Your task to perform on an android device: open app "LinkedIn" (install if not already installed), go to login, and select forgot password Image 0: 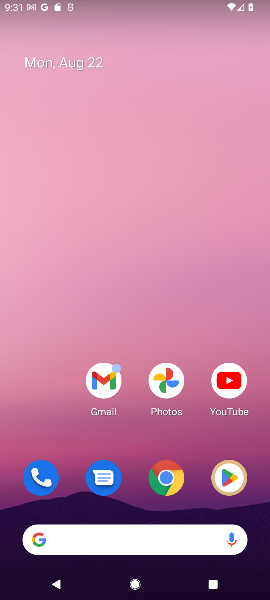
Step 0: click (237, 476)
Your task to perform on an android device: open app "LinkedIn" (install if not already installed), go to login, and select forgot password Image 1: 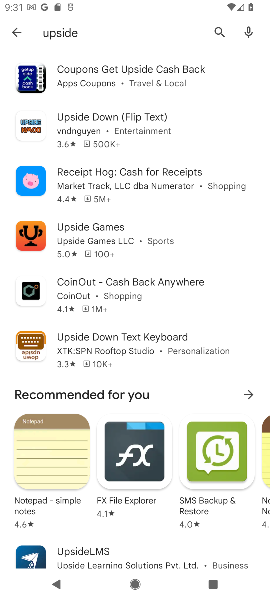
Step 1: click (218, 32)
Your task to perform on an android device: open app "LinkedIn" (install if not already installed), go to login, and select forgot password Image 2: 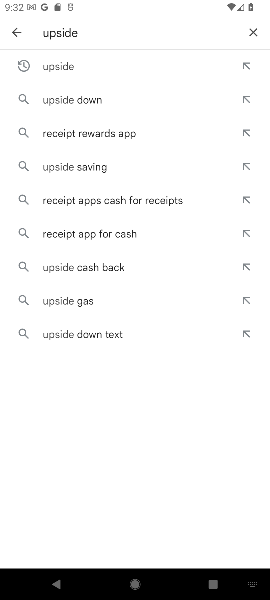
Step 2: click (242, 32)
Your task to perform on an android device: open app "LinkedIn" (install if not already installed), go to login, and select forgot password Image 3: 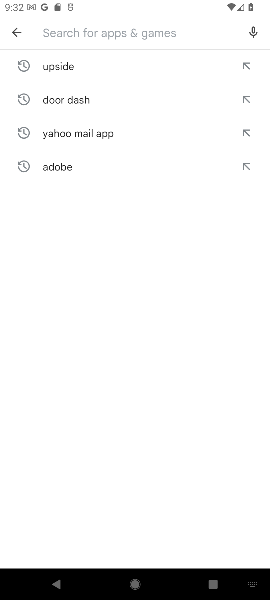
Step 3: type "chime"
Your task to perform on an android device: open app "LinkedIn" (install if not already installed), go to login, and select forgot password Image 4: 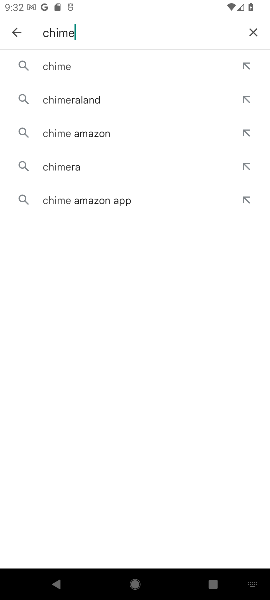
Step 4: click (179, 67)
Your task to perform on an android device: open app "LinkedIn" (install if not already installed), go to login, and select forgot password Image 5: 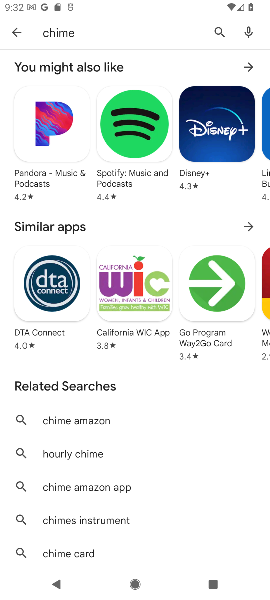
Step 5: task complete